Your task to perform on an android device: change your default location settings in chrome Image 0: 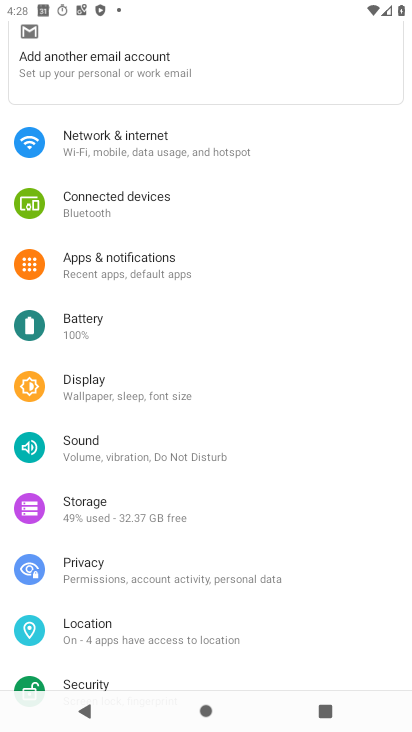
Step 0: press home button
Your task to perform on an android device: change your default location settings in chrome Image 1: 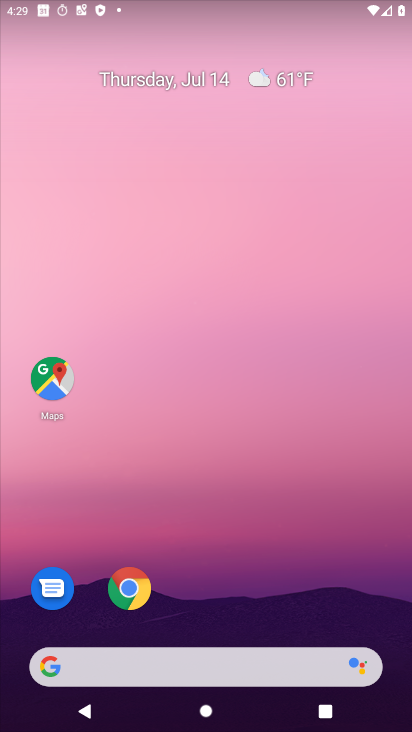
Step 1: click (129, 586)
Your task to perform on an android device: change your default location settings in chrome Image 2: 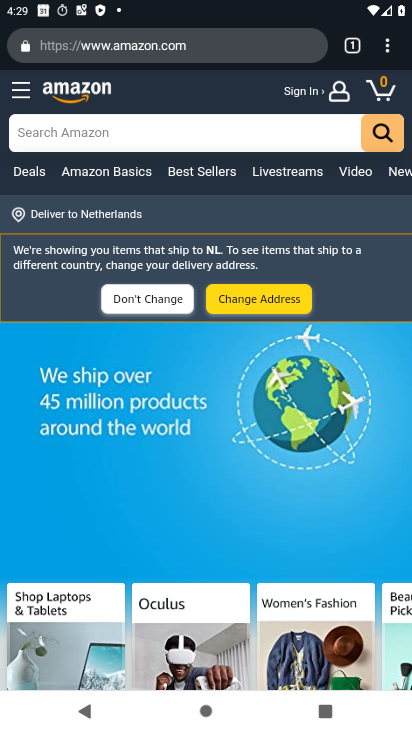
Step 2: click (390, 50)
Your task to perform on an android device: change your default location settings in chrome Image 3: 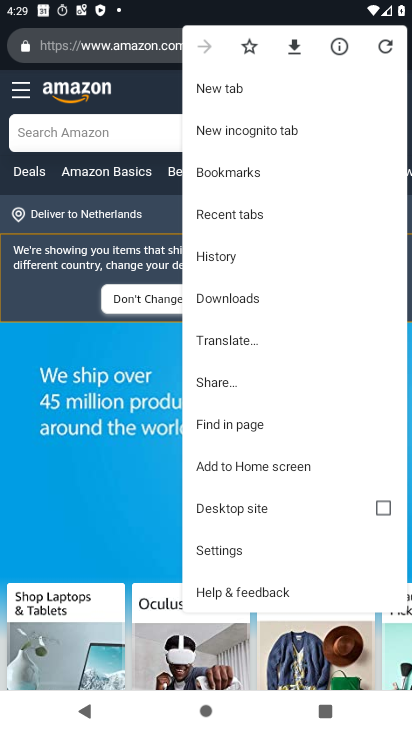
Step 3: click (224, 549)
Your task to perform on an android device: change your default location settings in chrome Image 4: 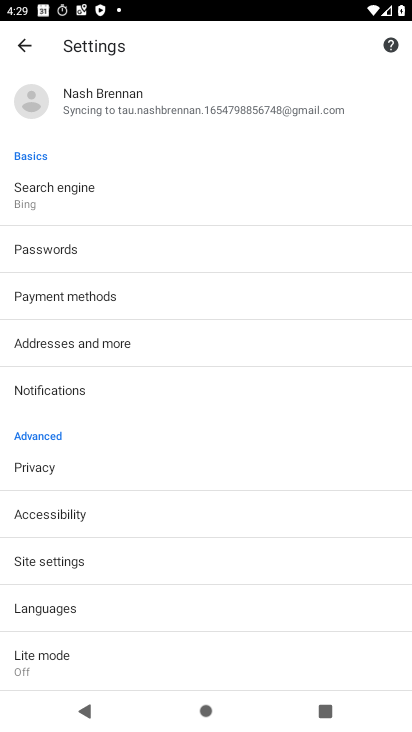
Step 4: drag from (117, 596) to (150, 488)
Your task to perform on an android device: change your default location settings in chrome Image 5: 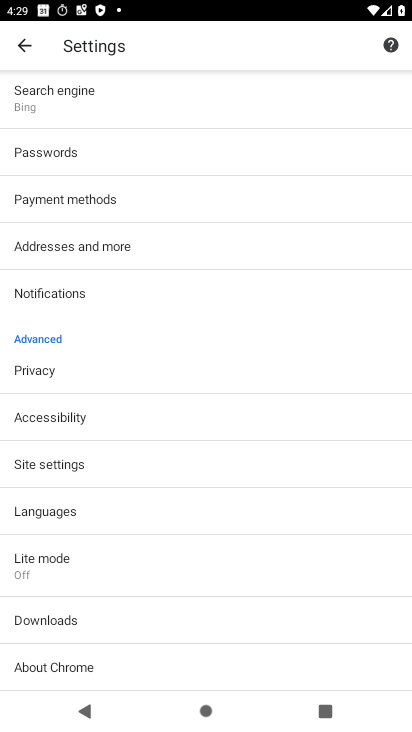
Step 5: click (52, 466)
Your task to perform on an android device: change your default location settings in chrome Image 6: 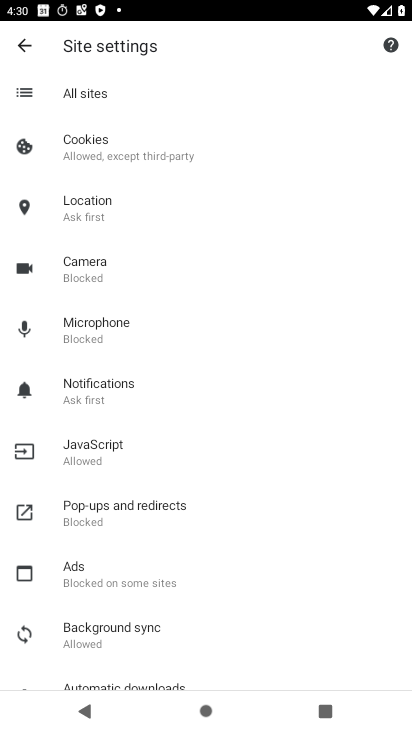
Step 6: click (73, 205)
Your task to perform on an android device: change your default location settings in chrome Image 7: 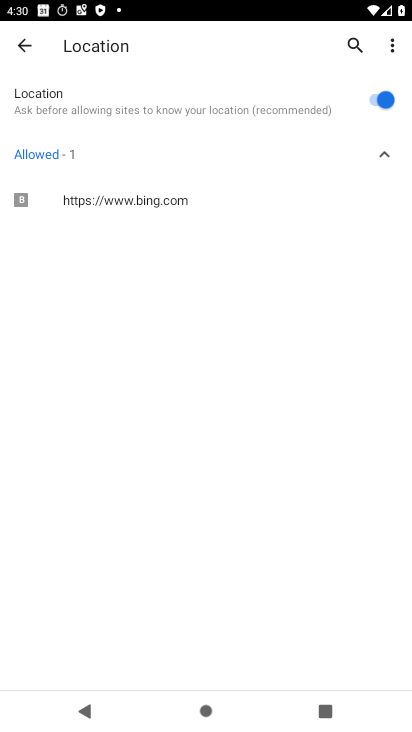
Step 7: click (386, 107)
Your task to perform on an android device: change your default location settings in chrome Image 8: 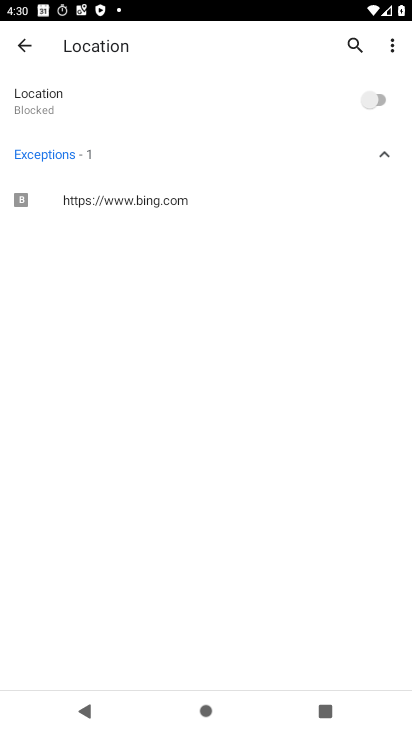
Step 8: task complete